Your task to perform on an android device: uninstall "Spotify" Image 0: 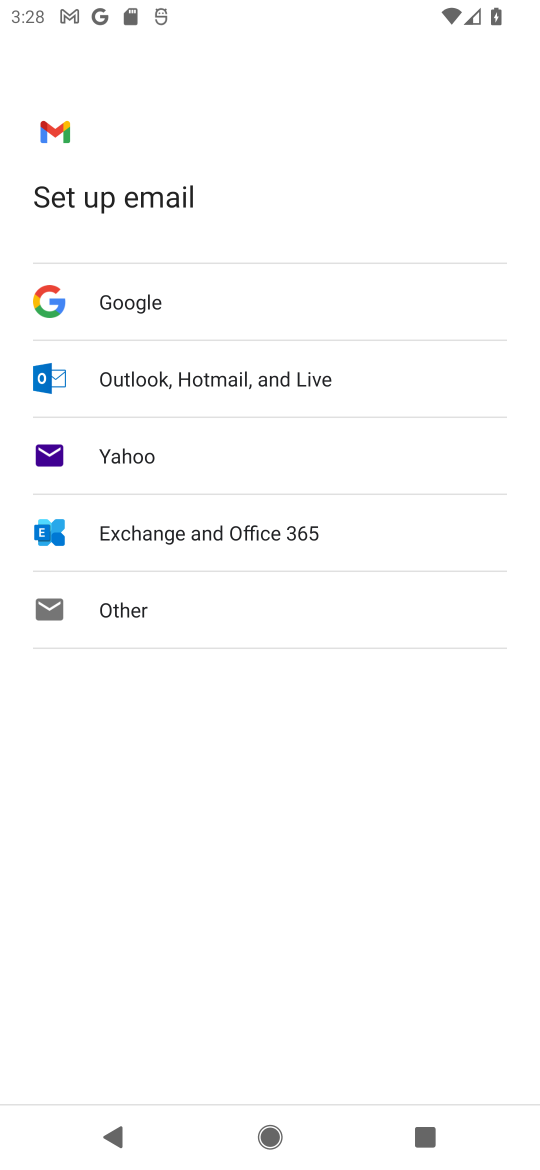
Step 0: drag from (274, 899) to (340, 241)
Your task to perform on an android device: uninstall "Spotify" Image 1: 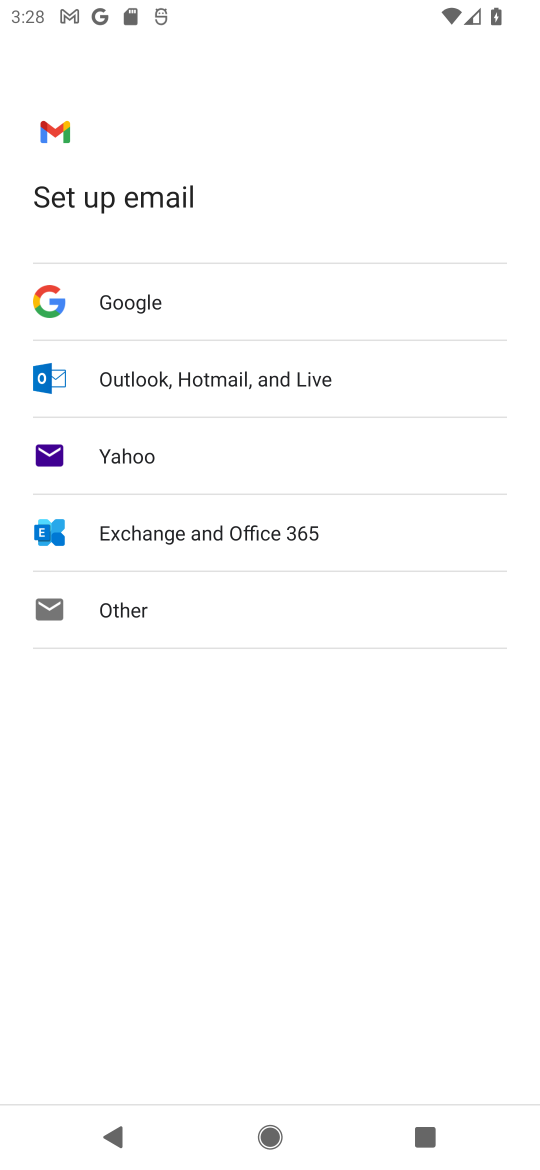
Step 1: drag from (343, 782) to (534, 340)
Your task to perform on an android device: uninstall "Spotify" Image 2: 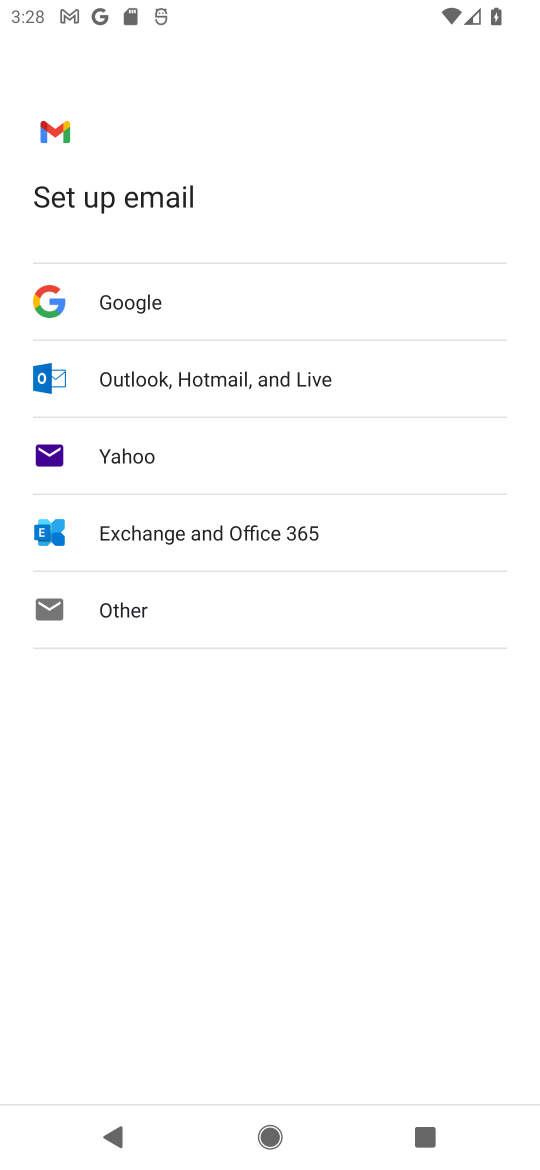
Step 2: press home button
Your task to perform on an android device: uninstall "Spotify" Image 3: 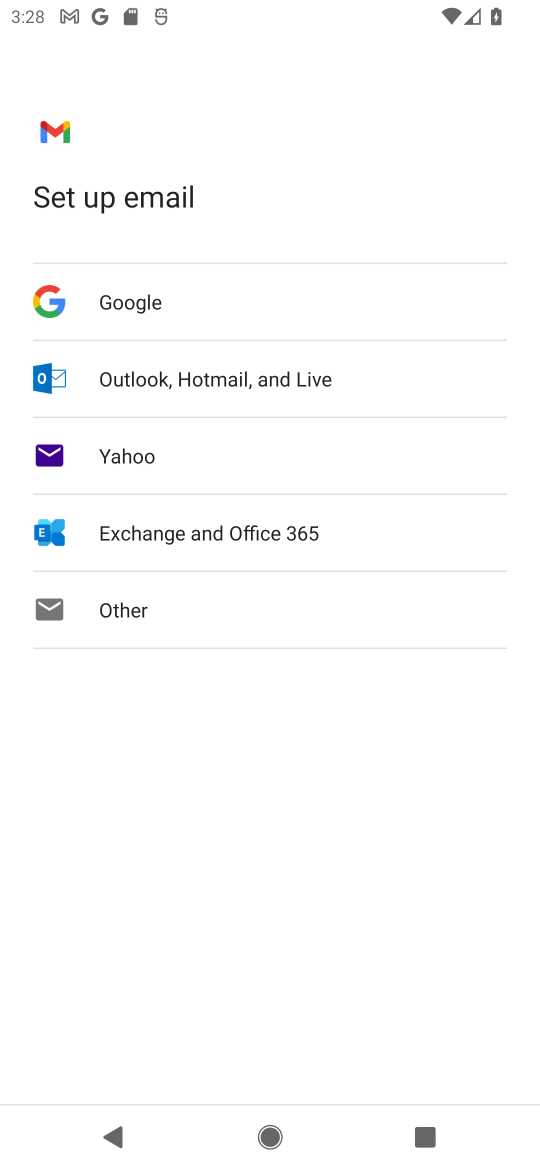
Step 3: press home button
Your task to perform on an android device: uninstall "Spotify" Image 4: 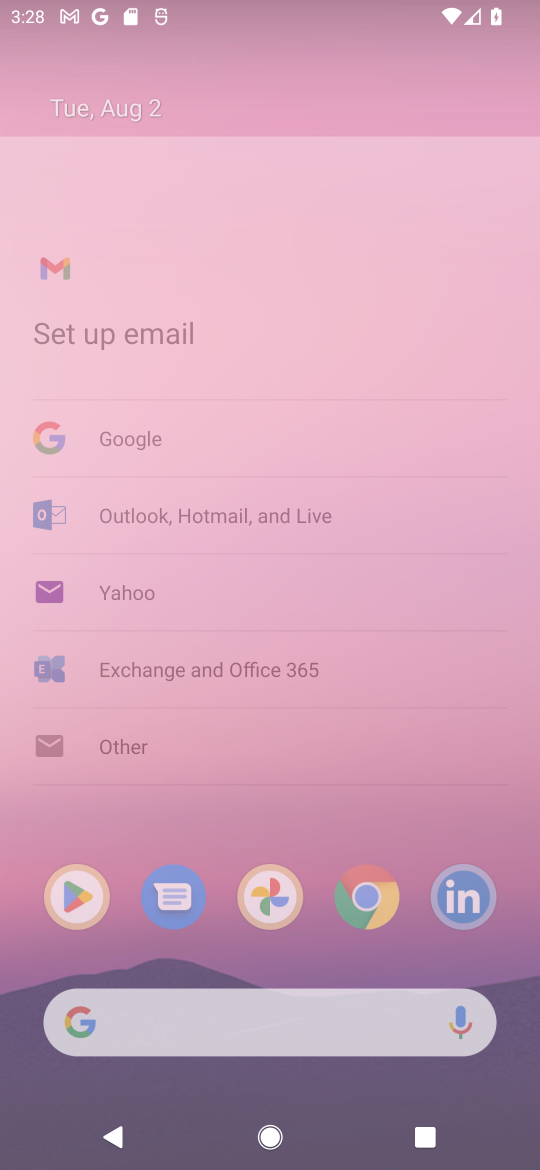
Step 4: drag from (187, 949) to (410, 82)
Your task to perform on an android device: uninstall "Spotify" Image 5: 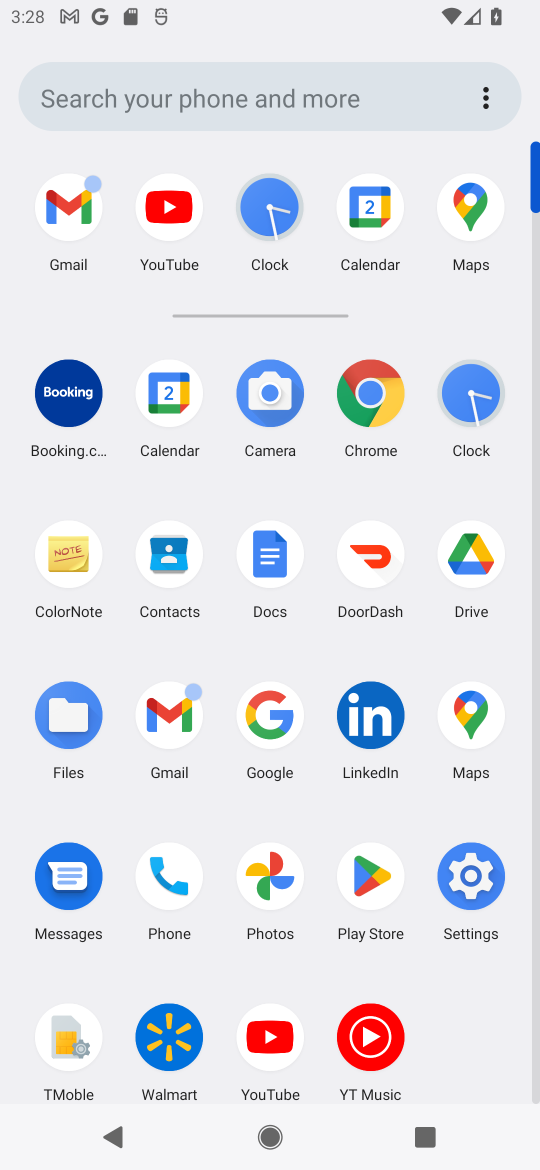
Step 5: click (351, 885)
Your task to perform on an android device: uninstall "Spotify" Image 6: 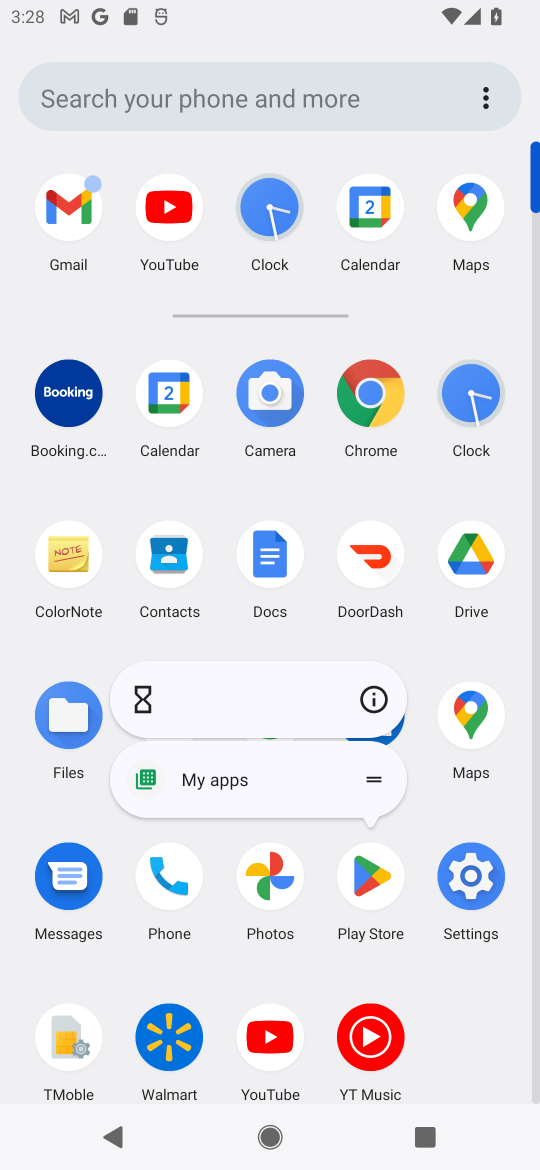
Step 6: click (388, 696)
Your task to perform on an android device: uninstall "Spotify" Image 7: 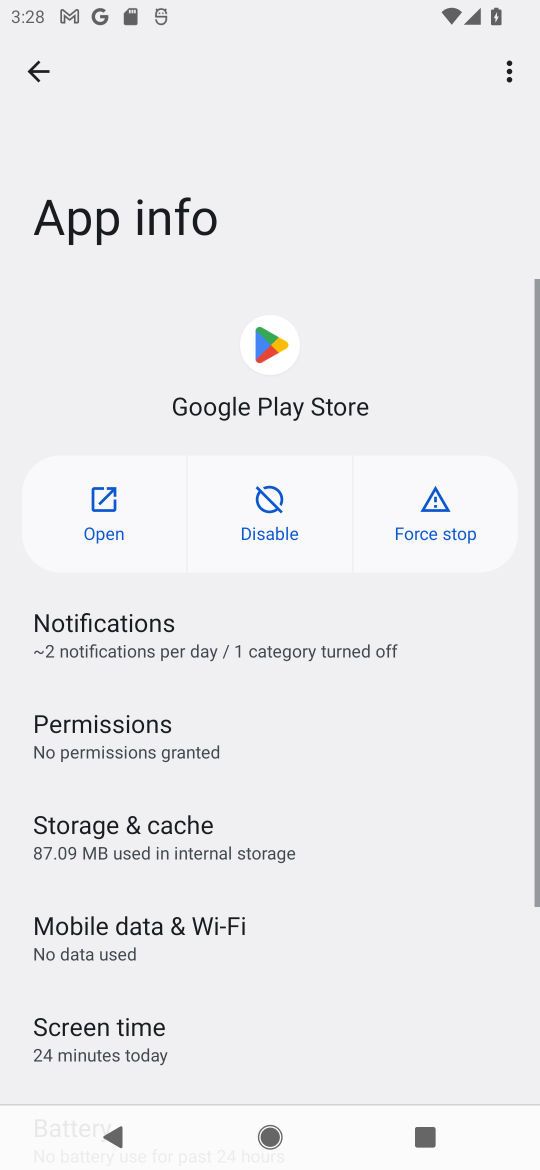
Step 7: click (104, 492)
Your task to perform on an android device: uninstall "Spotify" Image 8: 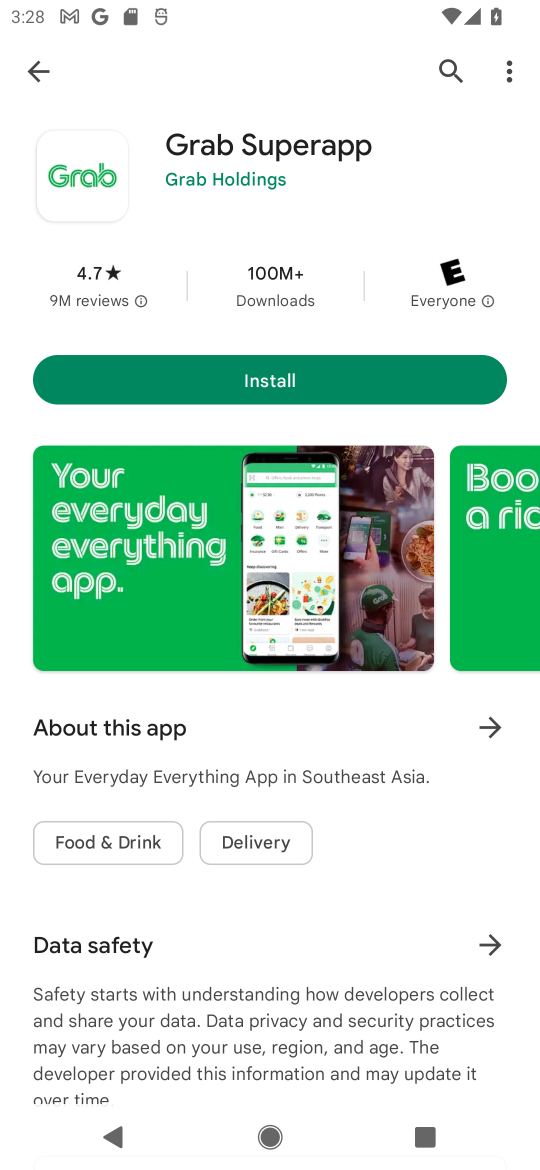
Step 8: click (462, 78)
Your task to perform on an android device: uninstall "Spotify" Image 9: 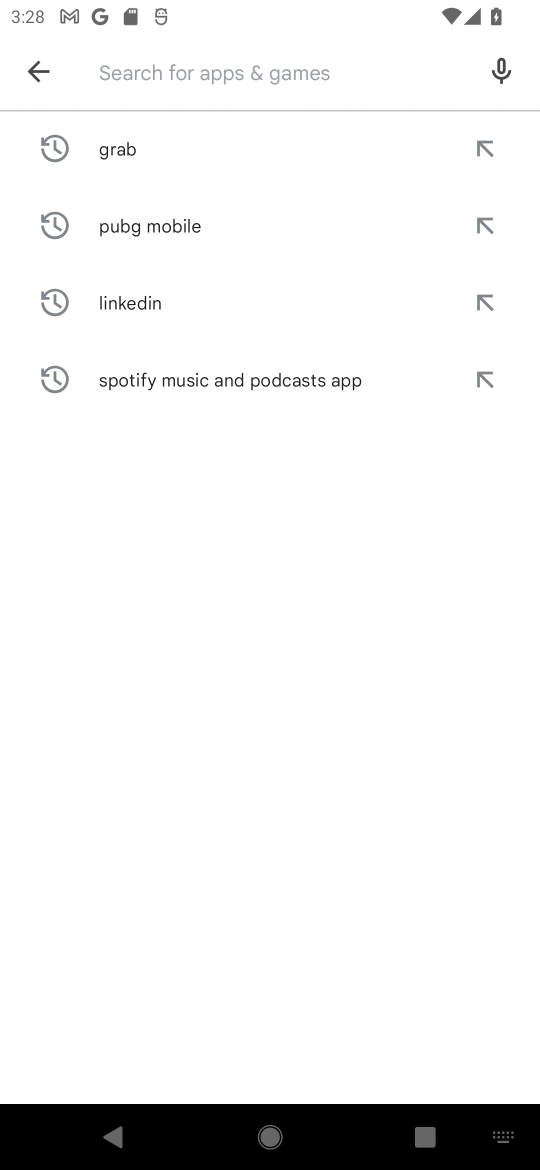
Step 9: type "Spotify"
Your task to perform on an android device: uninstall "Spotify" Image 10: 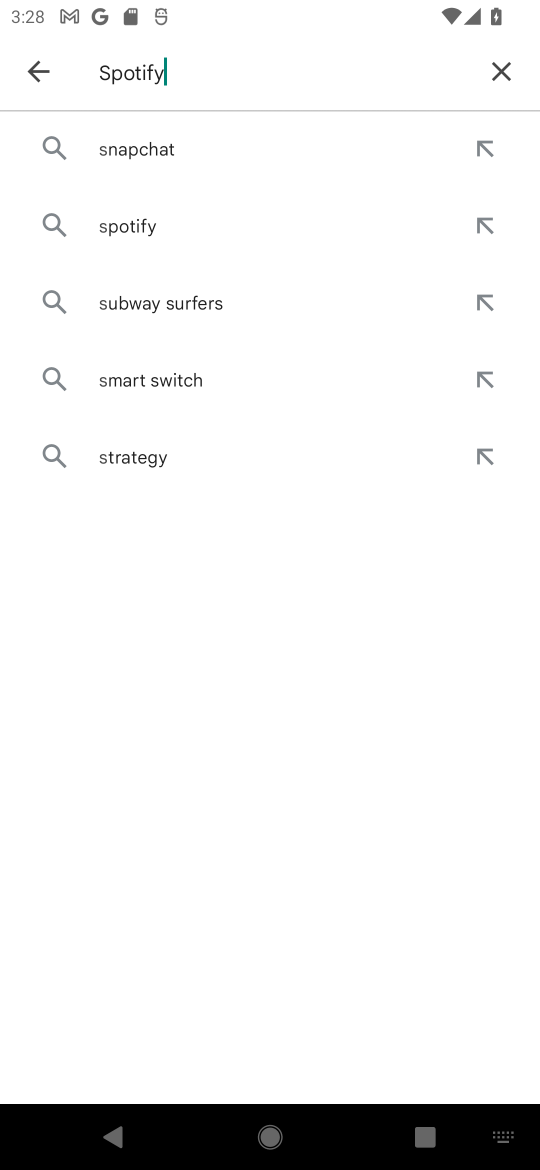
Step 10: type ""
Your task to perform on an android device: uninstall "Spotify" Image 11: 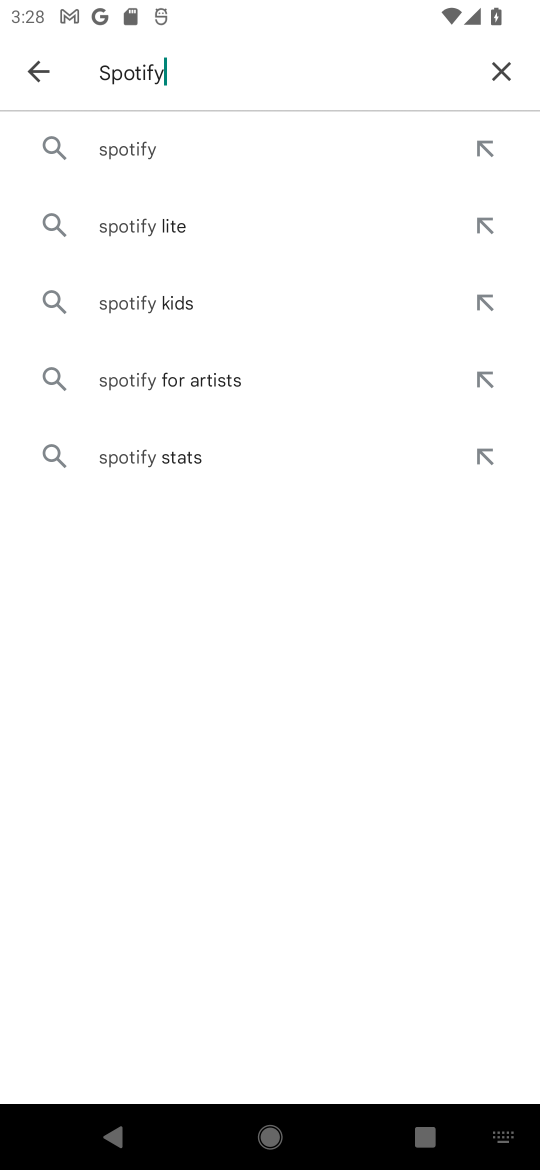
Step 11: click (166, 138)
Your task to perform on an android device: uninstall "Spotify" Image 12: 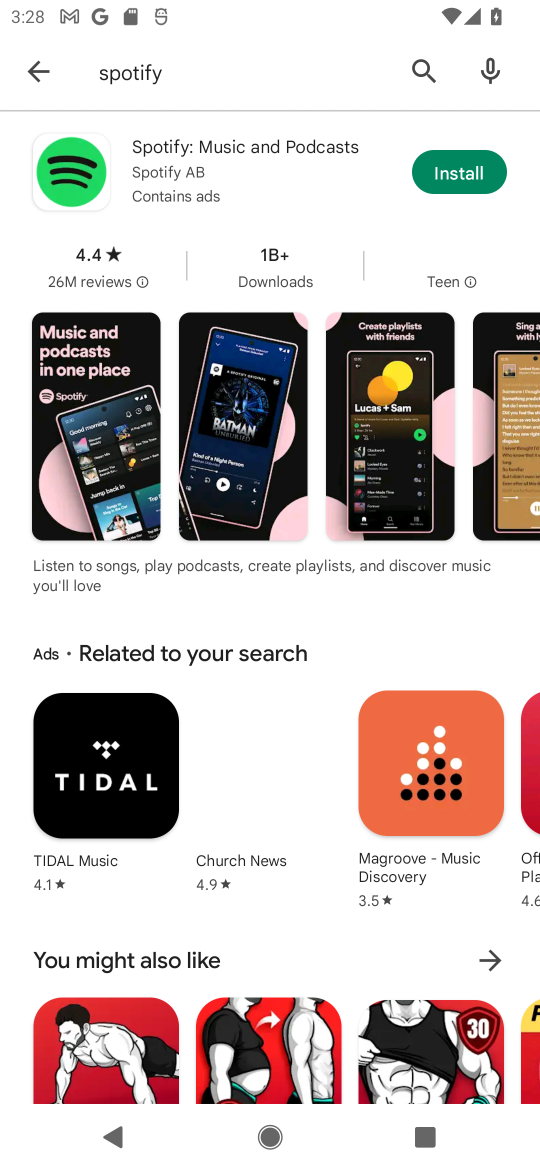
Step 12: click (150, 162)
Your task to perform on an android device: uninstall "Spotify" Image 13: 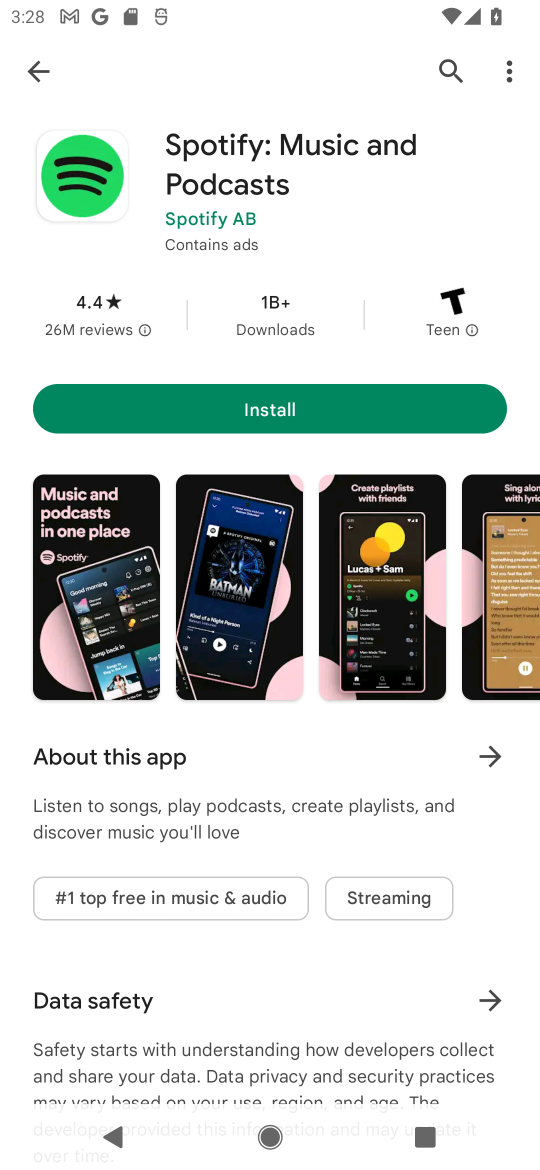
Step 13: task complete